Your task to perform on an android device: Open display settings Image 0: 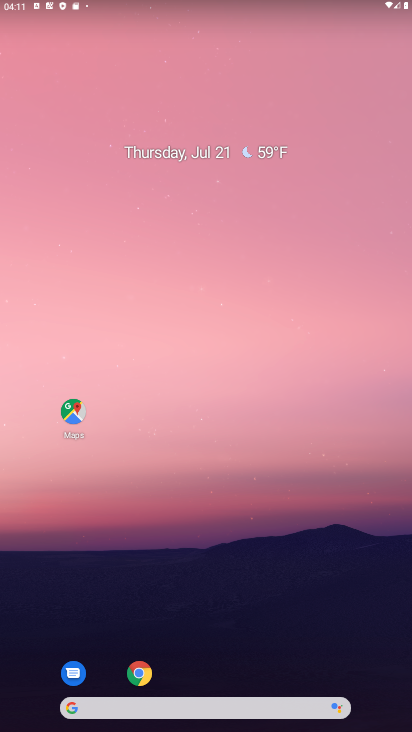
Step 0: drag from (396, 685) to (361, 174)
Your task to perform on an android device: Open display settings Image 1: 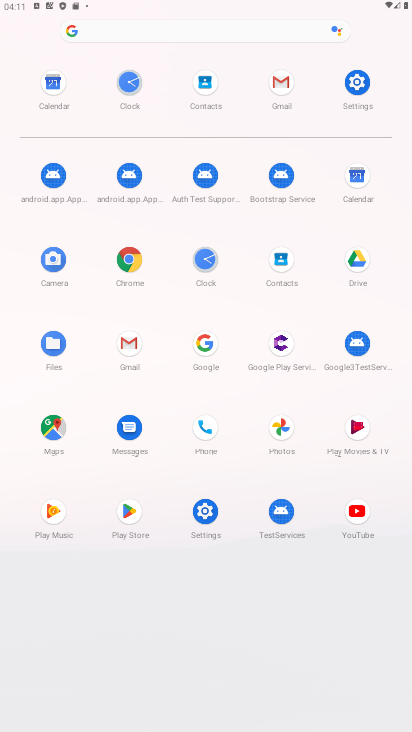
Step 1: click (205, 511)
Your task to perform on an android device: Open display settings Image 2: 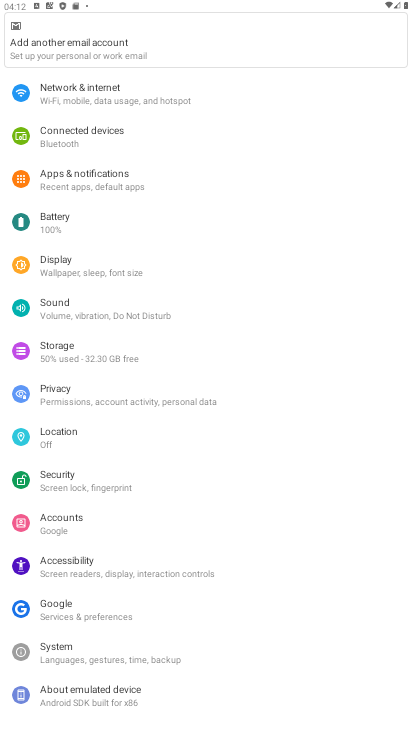
Step 2: click (59, 253)
Your task to perform on an android device: Open display settings Image 3: 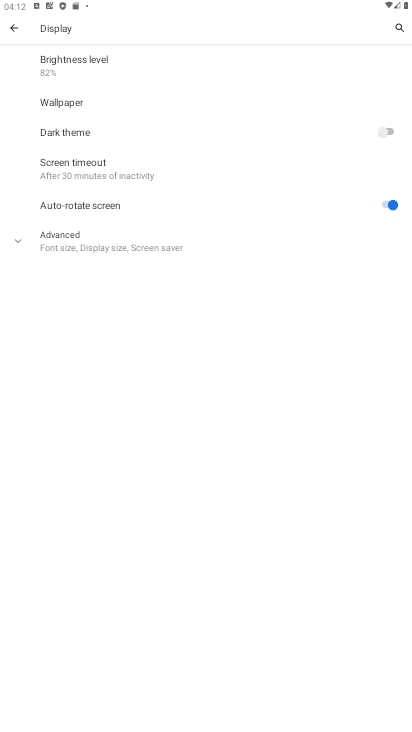
Step 3: click (16, 240)
Your task to perform on an android device: Open display settings Image 4: 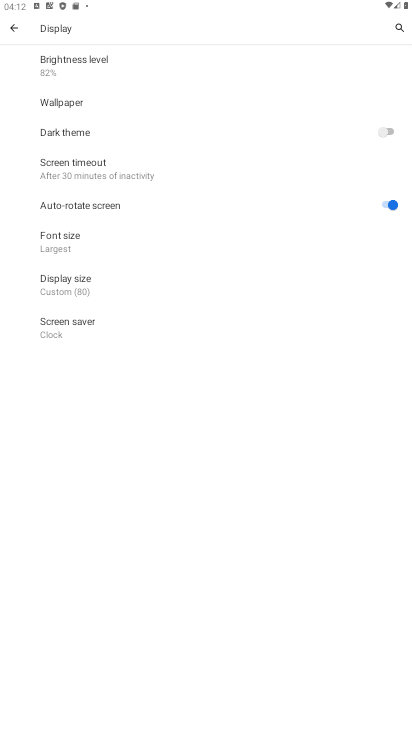
Step 4: task complete